Your task to perform on an android device: set an alarm Image 0: 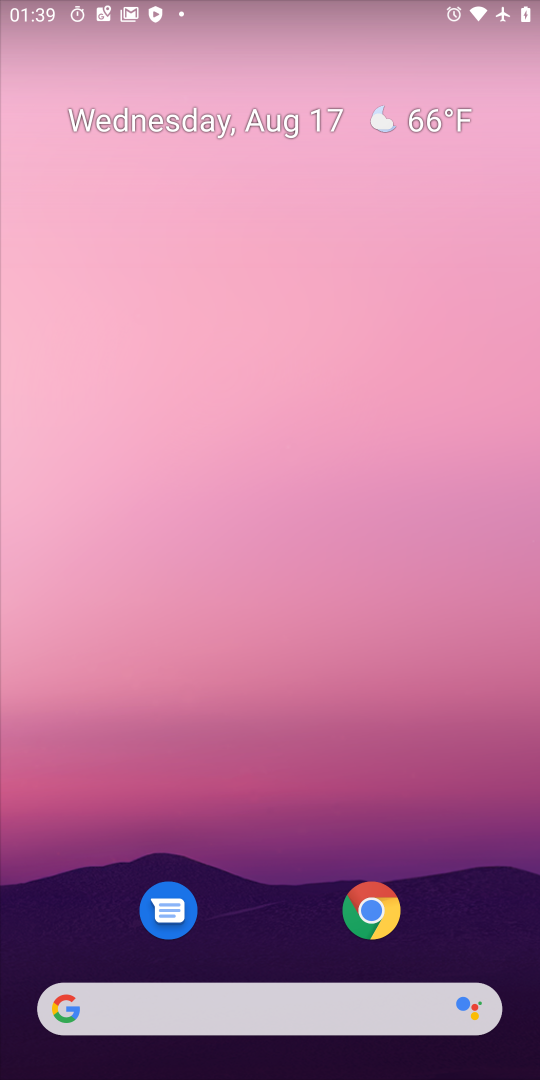
Step 0: drag from (379, 697) to (350, 2)
Your task to perform on an android device: set an alarm Image 1: 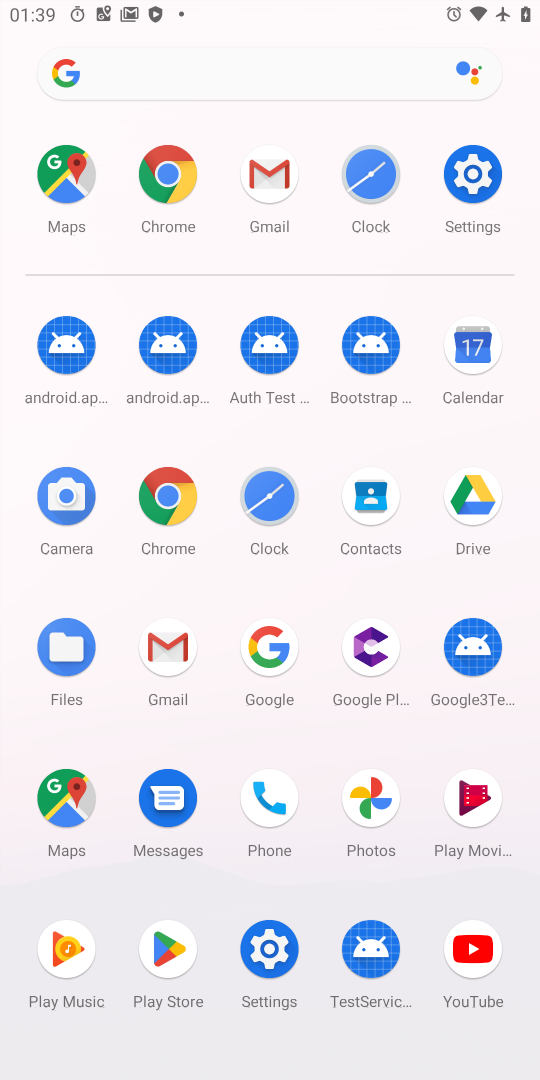
Step 1: click (263, 490)
Your task to perform on an android device: set an alarm Image 2: 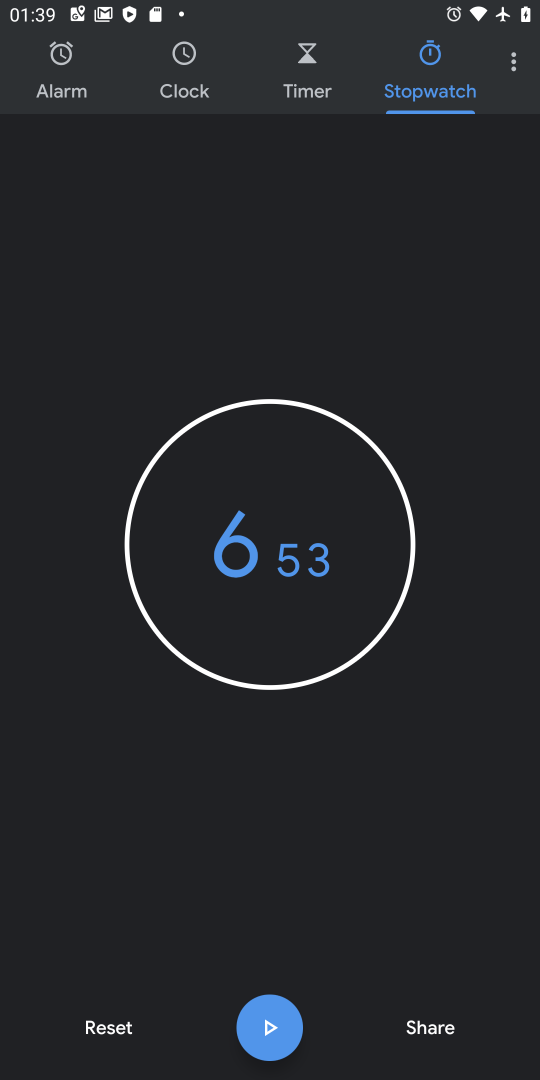
Step 2: click (73, 76)
Your task to perform on an android device: set an alarm Image 3: 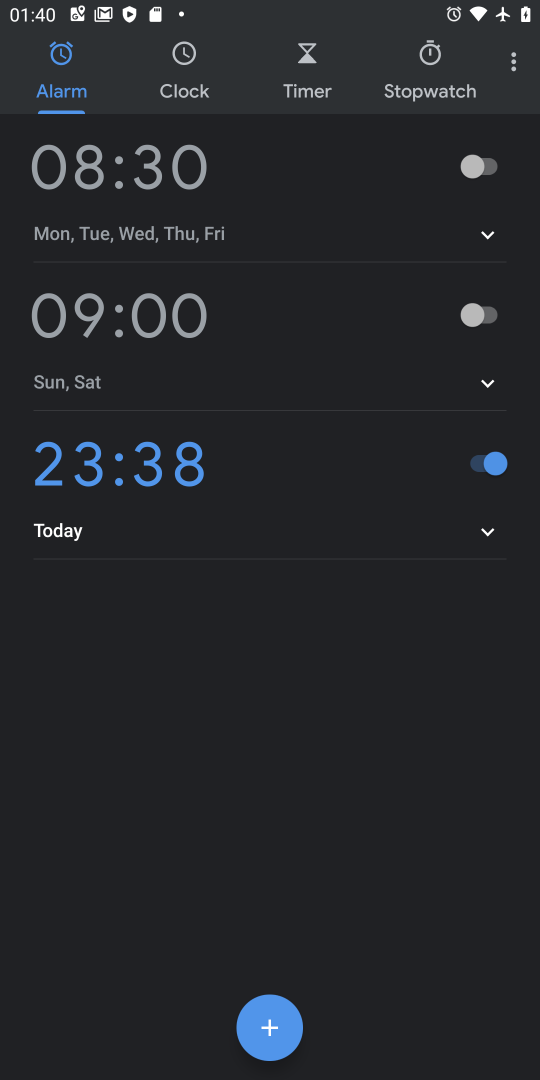
Step 3: click (261, 1021)
Your task to perform on an android device: set an alarm Image 4: 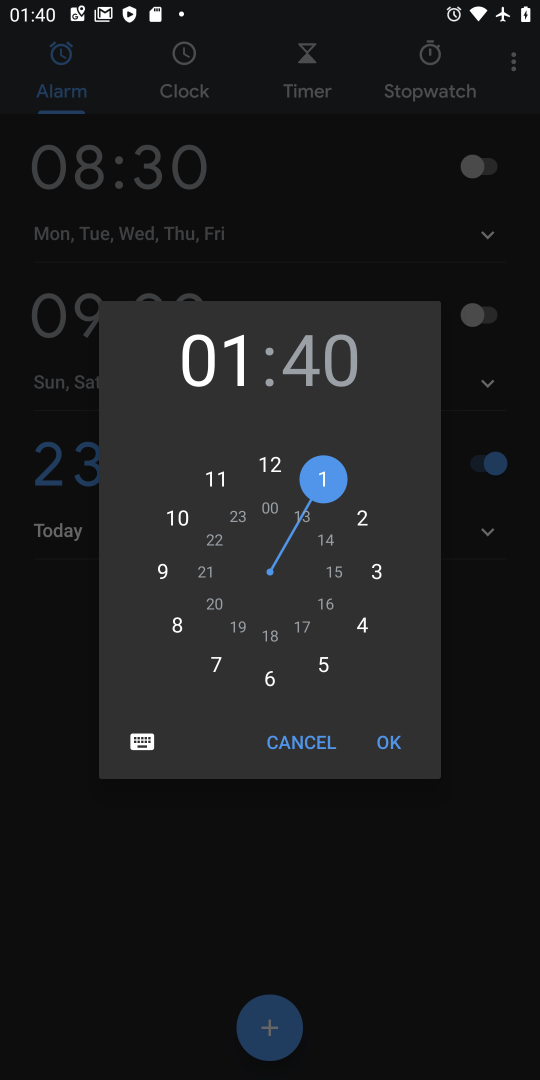
Step 4: click (394, 757)
Your task to perform on an android device: set an alarm Image 5: 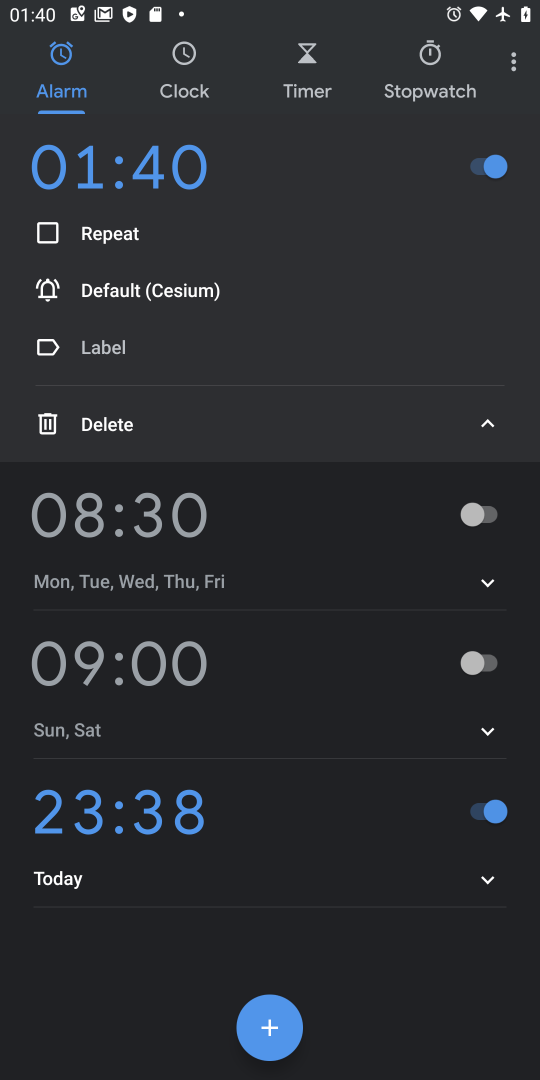
Step 5: task complete